Your task to perform on an android device: Open maps Image 0: 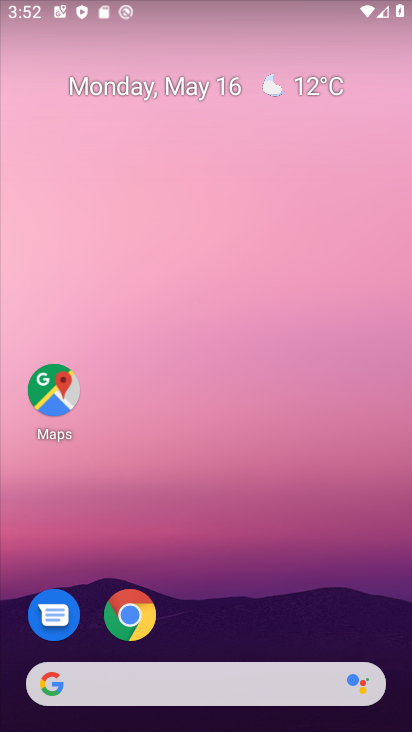
Step 0: drag from (196, 703) to (202, 111)
Your task to perform on an android device: Open maps Image 1: 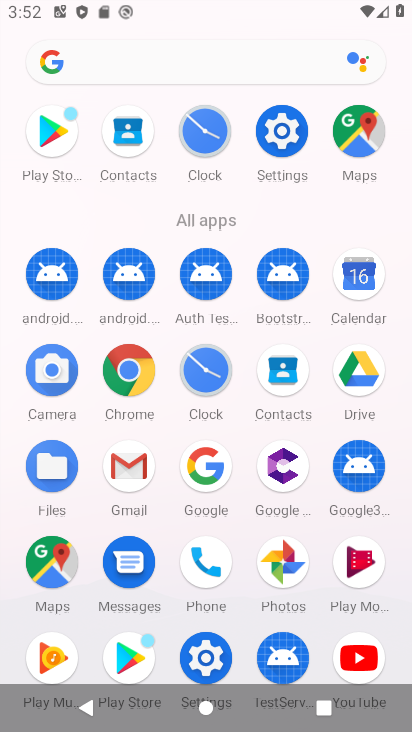
Step 1: click (338, 121)
Your task to perform on an android device: Open maps Image 2: 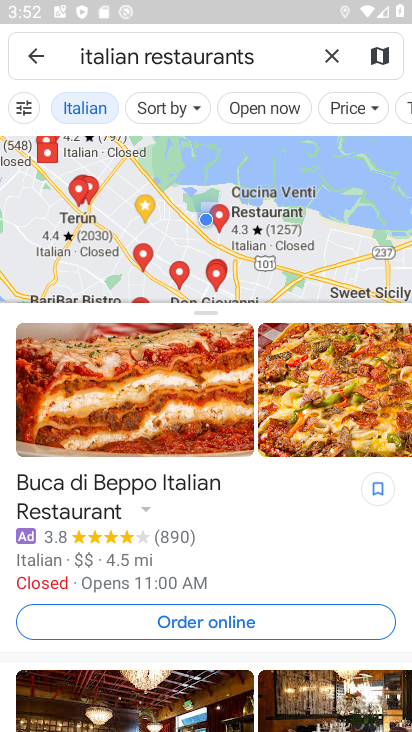
Step 2: task complete